Your task to perform on an android device: turn on wifi Image 0: 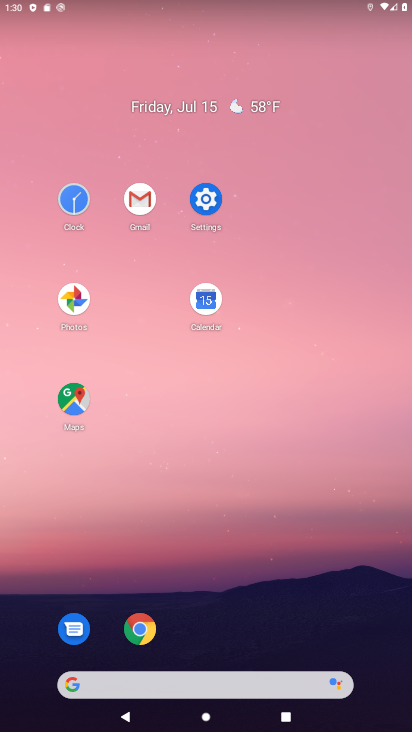
Step 0: click (219, 199)
Your task to perform on an android device: turn on wifi Image 1: 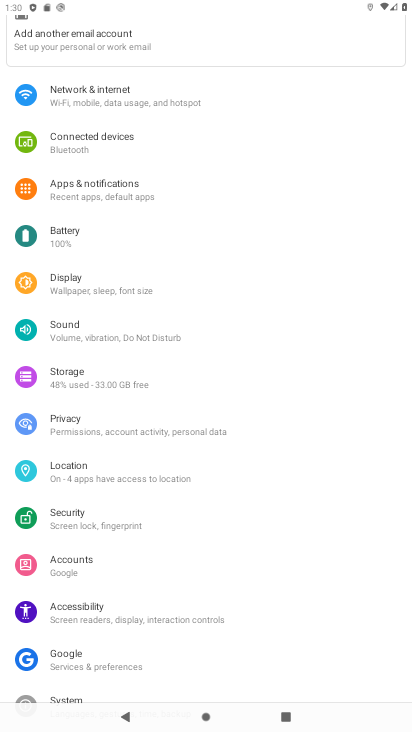
Step 1: click (136, 105)
Your task to perform on an android device: turn on wifi Image 2: 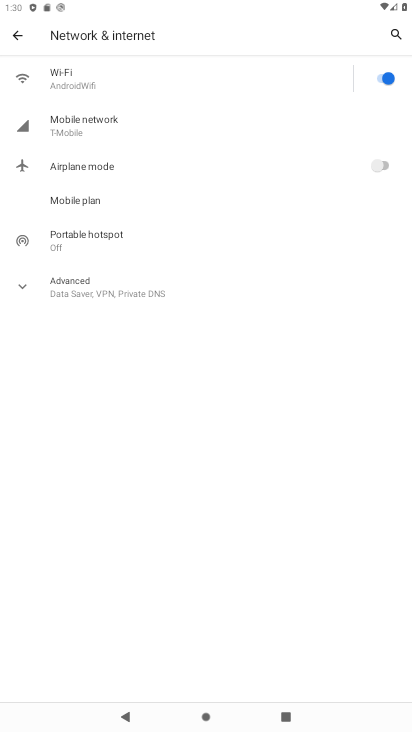
Step 2: click (79, 68)
Your task to perform on an android device: turn on wifi Image 3: 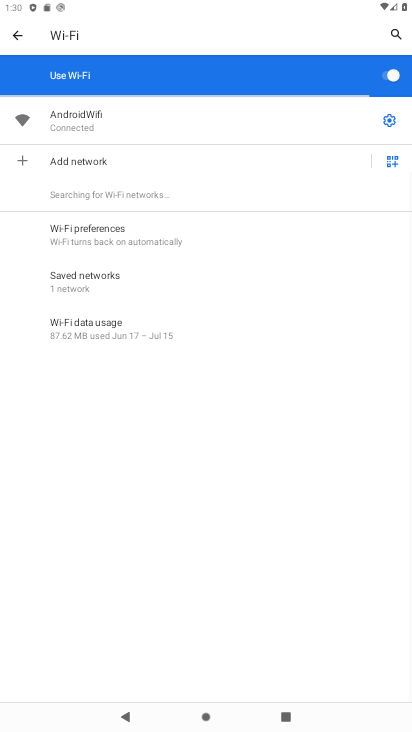
Step 3: click (388, 127)
Your task to perform on an android device: turn on wifi Image 4: 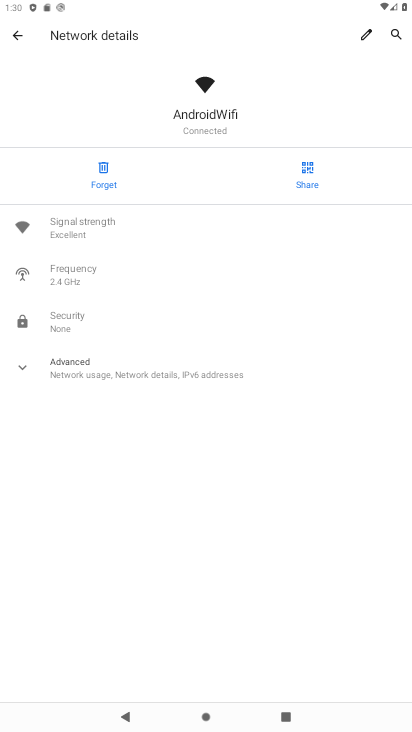
Step 4: task complete